Your task to perform on an android device: set default search engine in the chrome app Image 0: 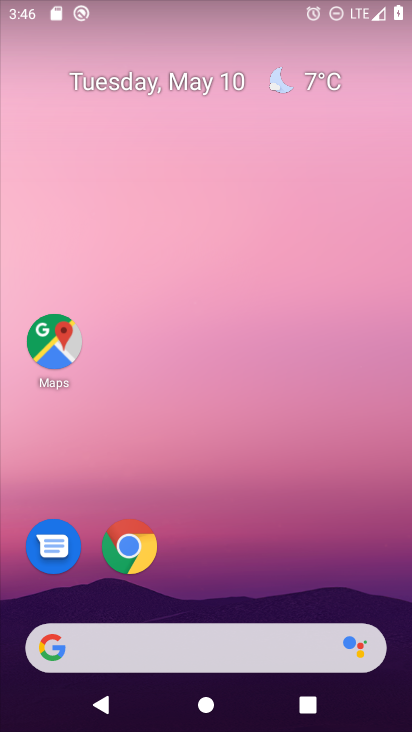
Step 0: click (137, 549)
Your task to perform on an android device: set default search engine in the chrome app Image 1: 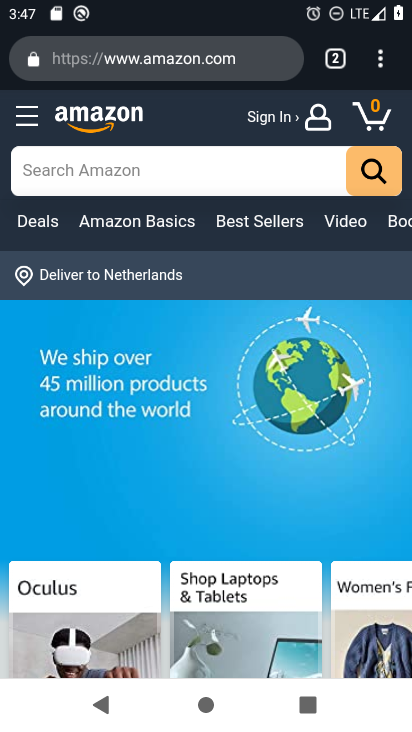
Step 1: click (379, 58)
Your task to perform on an android device: set default search engine in the chrome app Image 2: 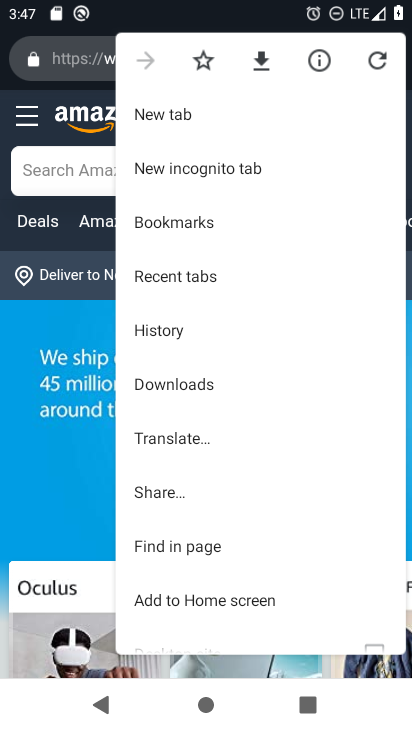
Step 2: drag from (176, 472) to (222, 152)
Your task to perform on an android device: set default search engine in the chrome app Image 3: 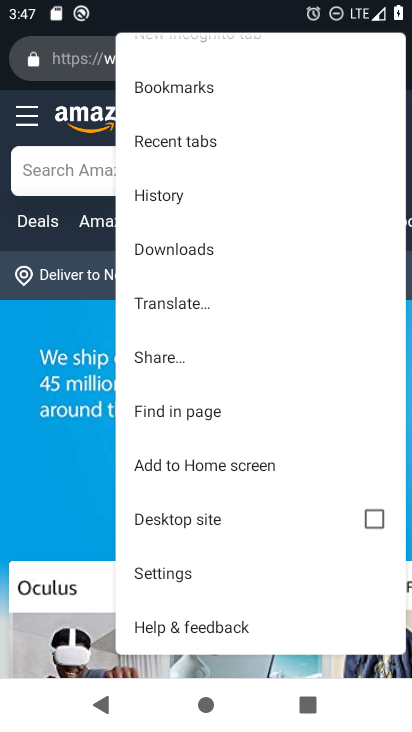
Step 3: click (171, 572)
Your task to perform on an android device: set default search engine in the chrome app Image 4: 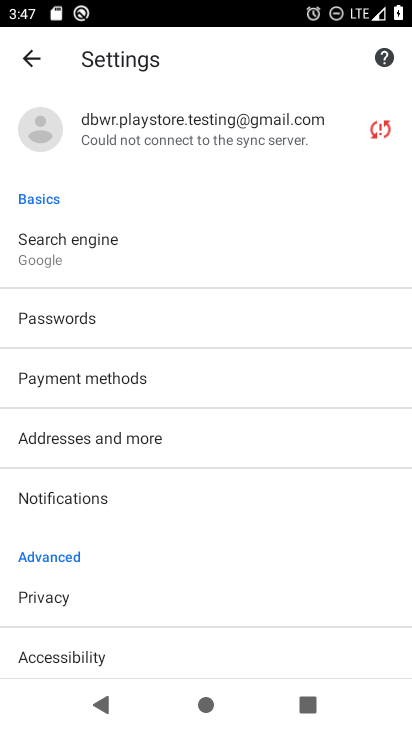
Step 4: click (95, 243)
Your task to perform on an android device: set default search engine in the chrome app Image 5: 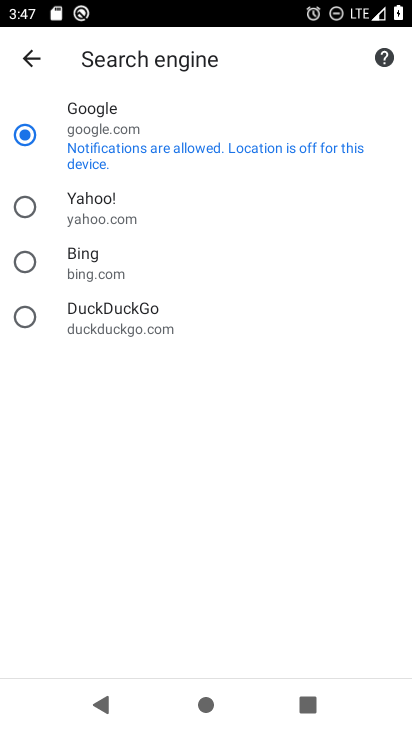
Step 5: click (81, 215)
Your task to perform on an android device: set default search engine in the chrome app Image 6: 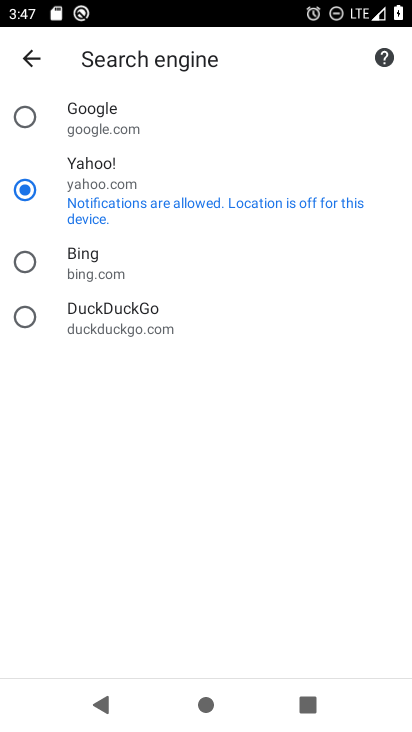
Step 6: task complete